Your task to perform on an android device: Open the phone app and click the voicemail tab. Image 0: 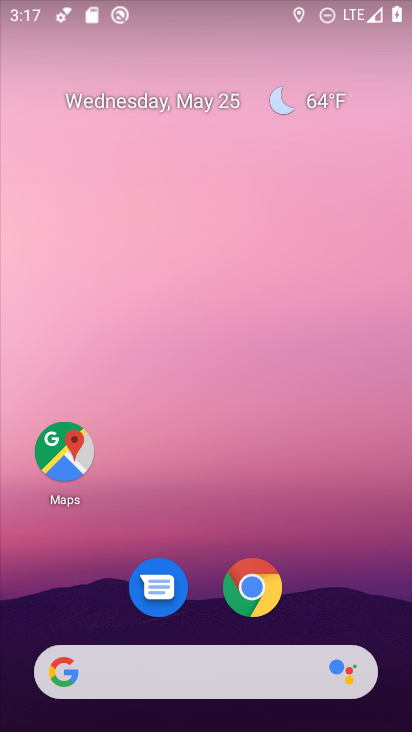
Step 0: drag from (340, 624) to (281, 171)
Your task to perform on an android device: Open the phone app and click the voicemail tab. Image 1: 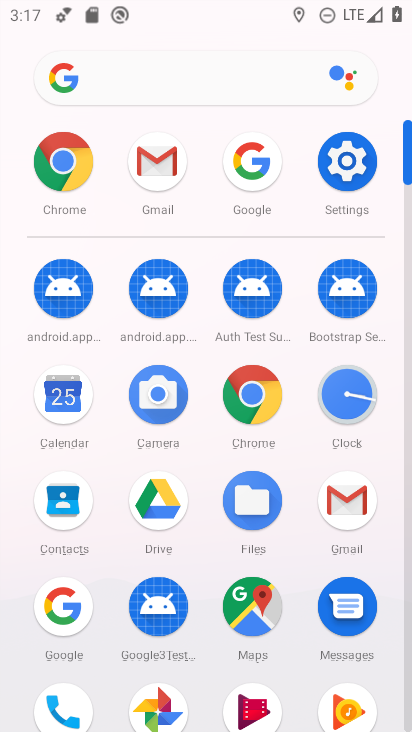
Step 1: click (404, 702)
Your task to perform on an android device: Open the phone app and click the voicemail tab. Image 2: 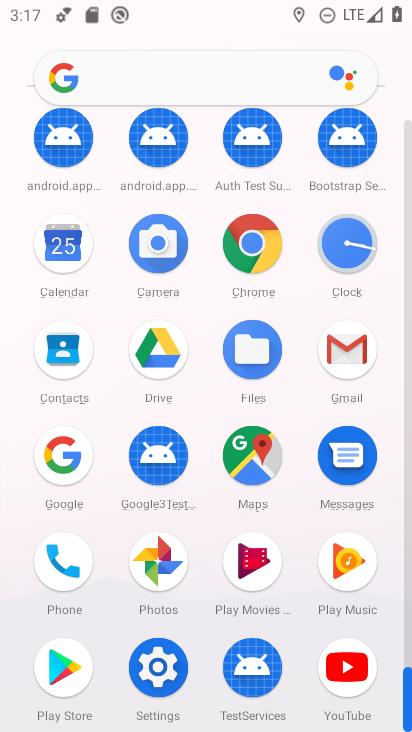
Step 2: click (64, 552)
Your task to perform on an android device: Open the phone app and click the voicemail tab. Image 3: 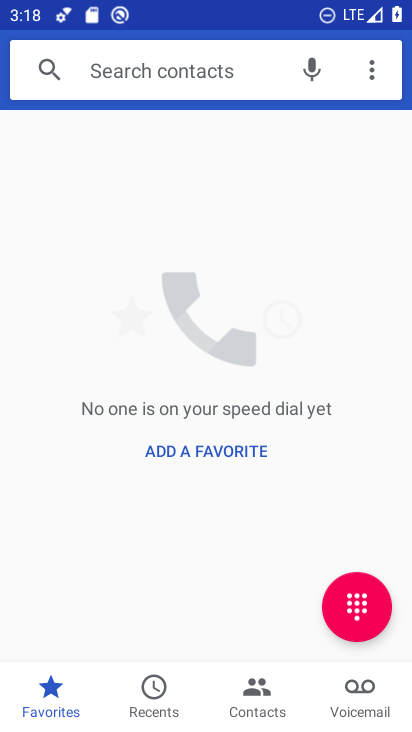
Step 3: click (360, 698)
Your task to perform on an android device: Open the phone app and click the voicemail tab. Image 4: 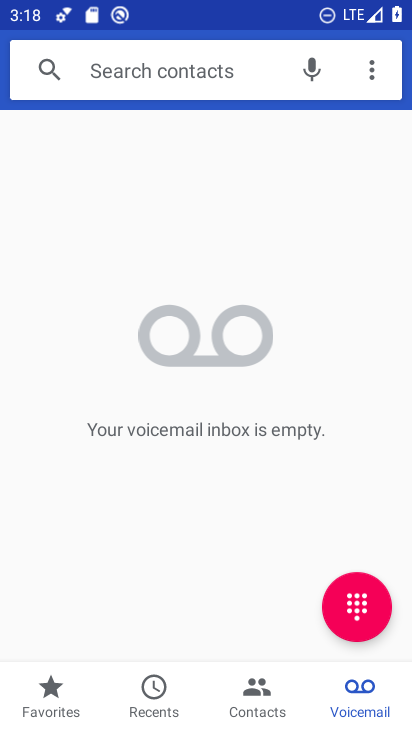
Step 4: task complete